Your task to perform on an android device: move a message to another label in the gmail app Image 0: 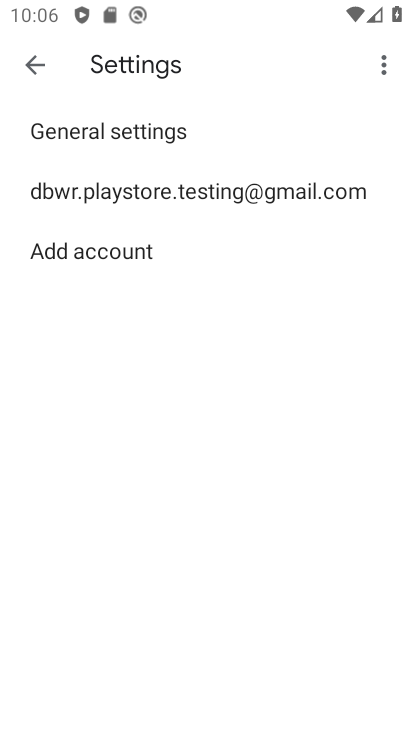
Step 0: press home button
Your task to perform on an android device: move a message to another label in the gmail app Image 1: 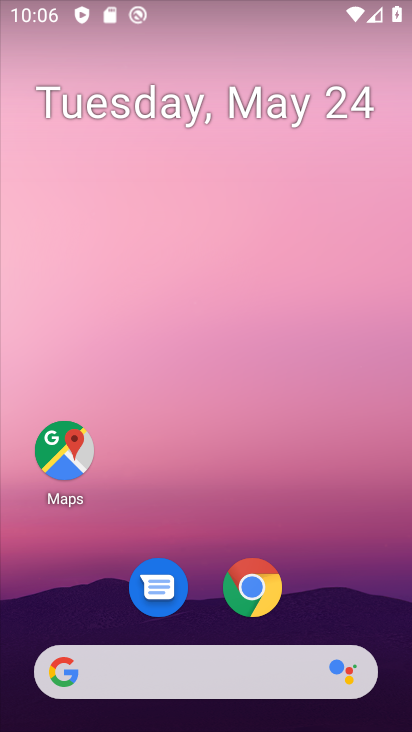
Step 1: drag from (351, 588) to (284, 87)
Your task to perform on an android device: move a message to another label in the gmail app Image 2: 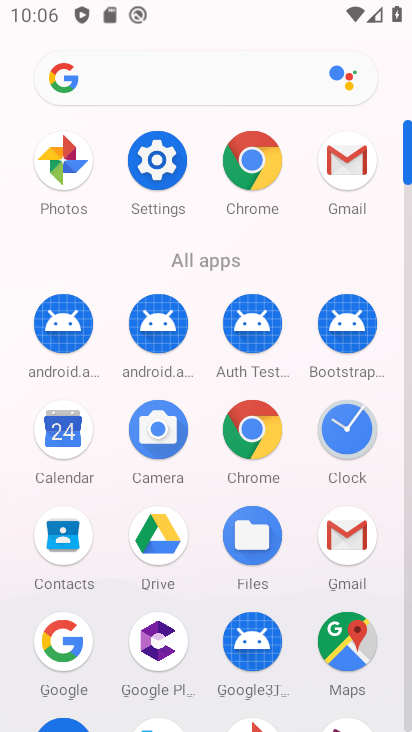
Step 2: click (365, 533)
Your task to perform on an android device: move a message to another label in the gmail app Image 3: 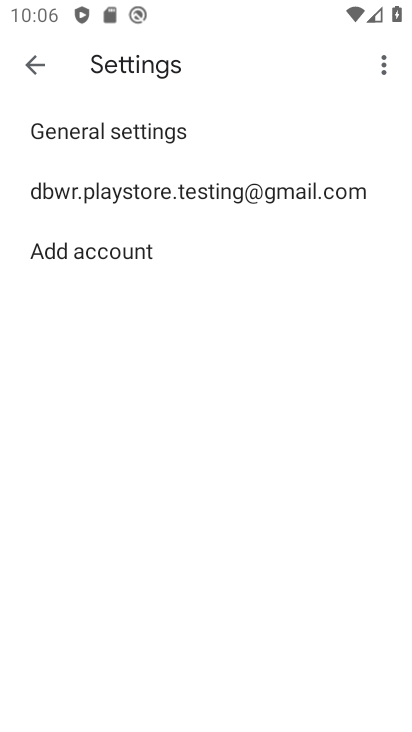
Step 3: click (35, 76)
Your task to perform on an android device: move a message to another label in the gmail app Image 4: 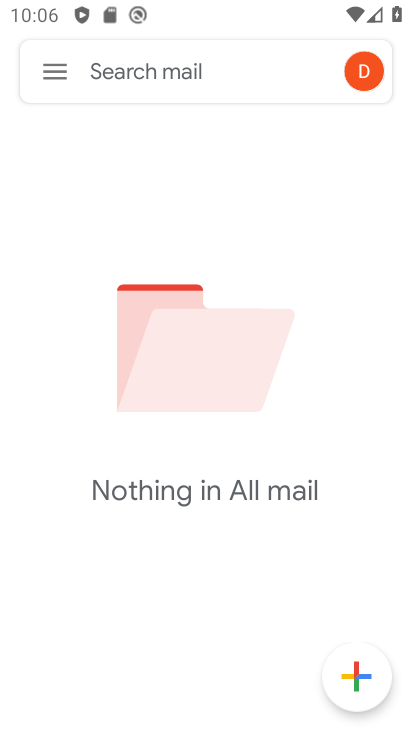
Step 4: click (35, 76)
Your task to perform on an android device: move a message to another label in the gmail app Image 5: 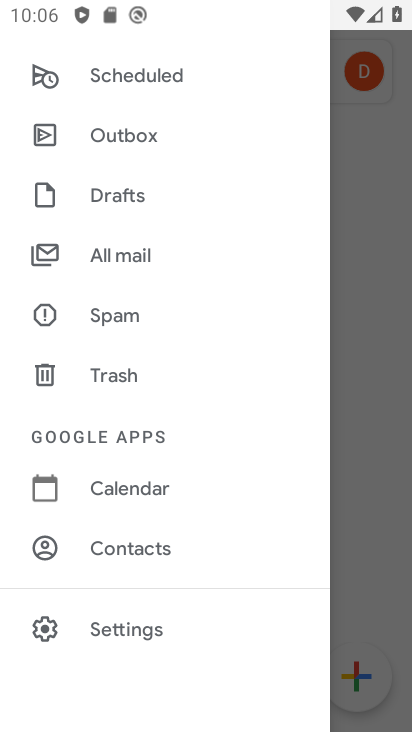
Step 5: task complete